Your task to perform on an android device: refresh tabs in the chrome app Image 0: 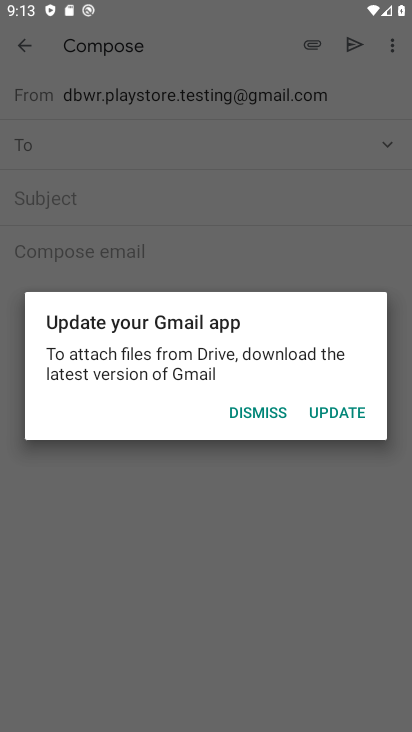
Step 0: click (123, 629)
Your task to perform on an android device: refresh tabs in the chrome app Image 1: 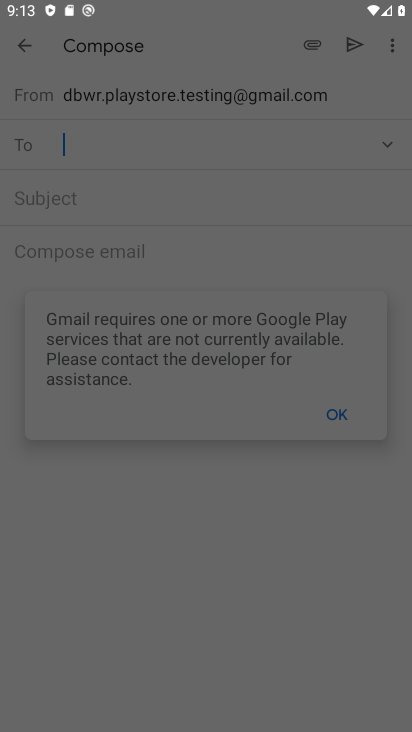
Step 1: press back button
Your task to perform on an android device: refresh tabs in the chrome app Image 2: 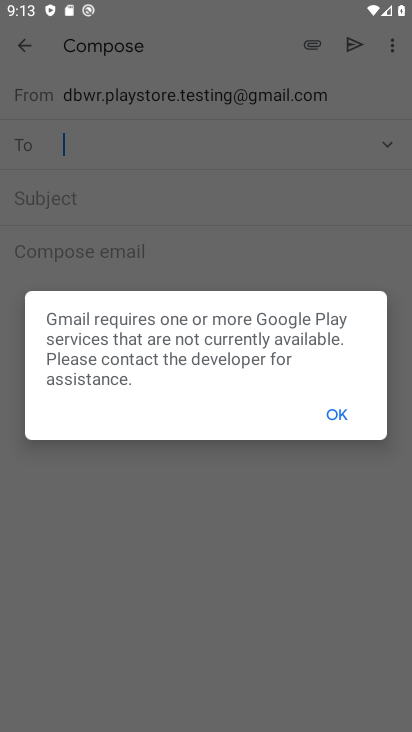
Step 2: press back button
Your task to perform on an android device: refresh tabs in the chrome app Image 3: 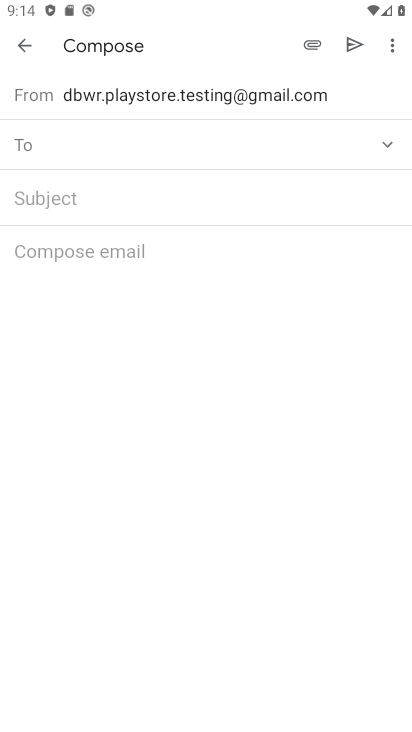
Step 3: press home button
Your task to perform on an android device: refresh tabs in the chrome app Image 4: 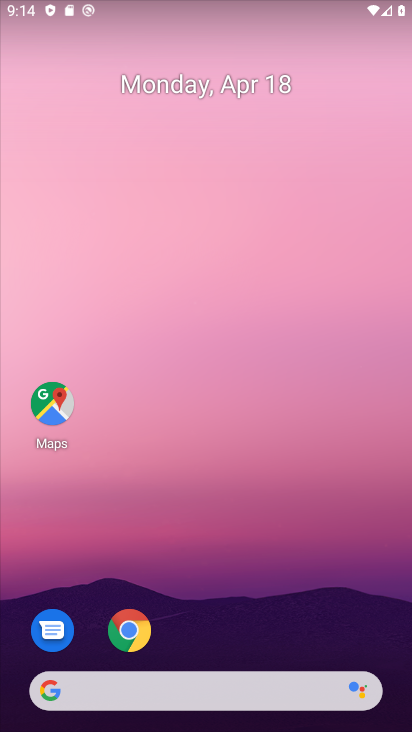
Step 4: click (141, 632)
Your task to perform on an android device: refresh tabs in the chrome app Image 5: 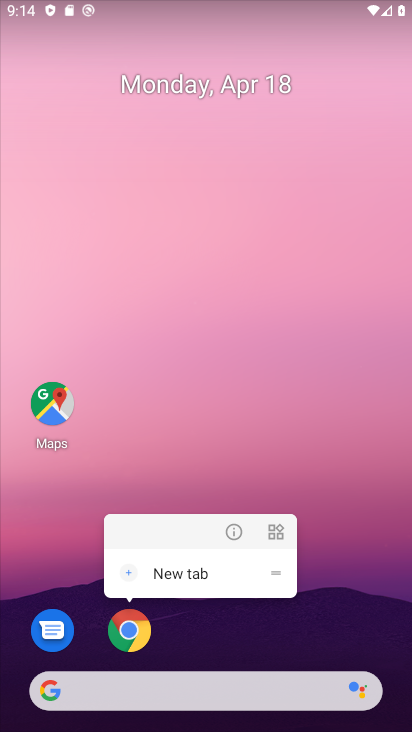
Step 5: click (198, 648)
Your task to perform on an android device: refresh tabs in the chrome app Image 6: 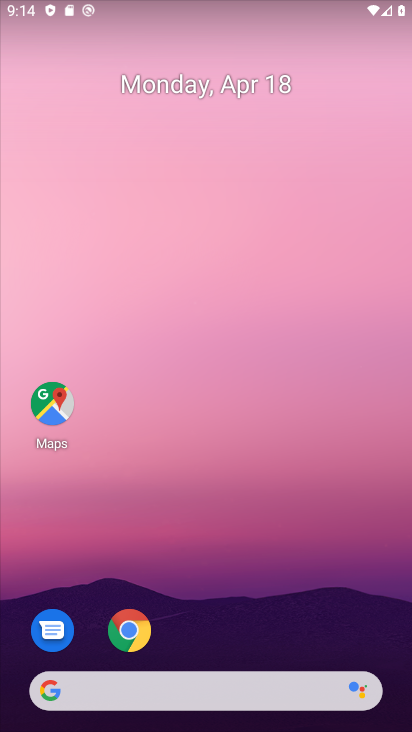
Step 6: drag from (199, 613) to (228, 160)
Your task to perform on an android device: refresh tabs in the chrome app Image 7: 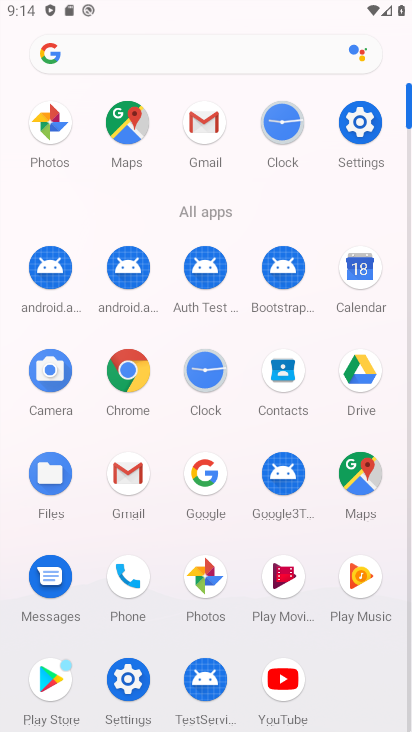
Step 7: click (130, 382)
Your task to perform on an android device: refresh tabs in the chrome app Image 8: 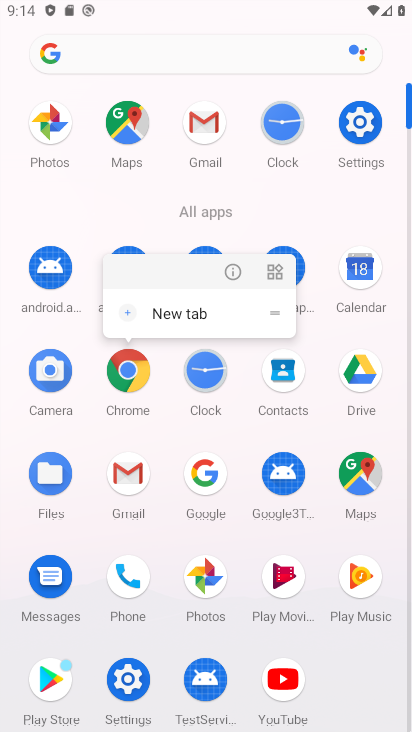
Step 8: click (133, 373)
Your task to perform on an android device: refresh tabs in the chrome app Image 9: 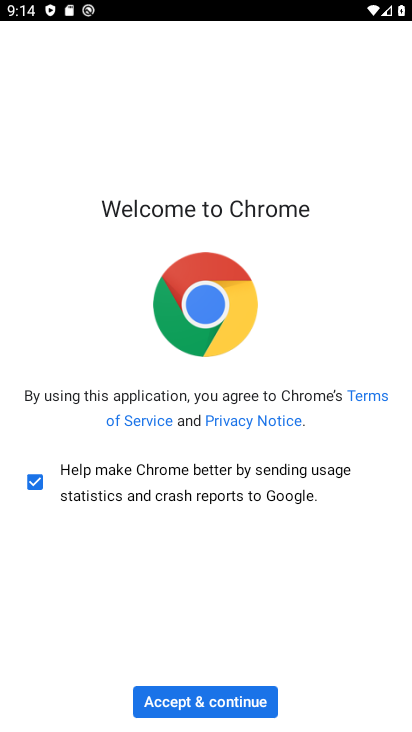
Step 9: click (246, 693)
Your task to perform on an android device: refresh tabs in the chrome app Image 10: 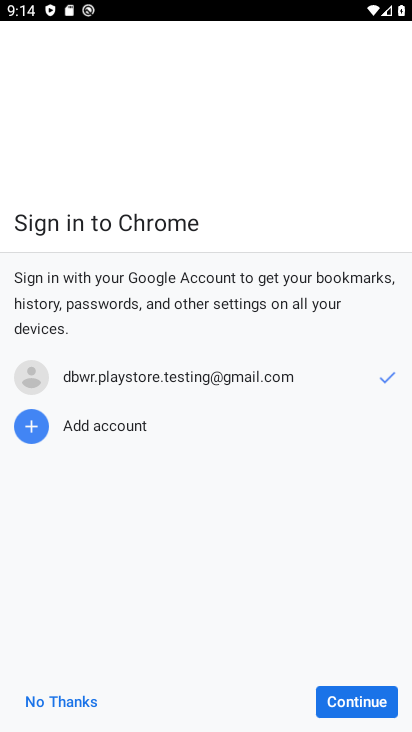
Step 10: click (361, 700)
Your task to perform on an android device: refresh tabs in the chrome app Image 11: 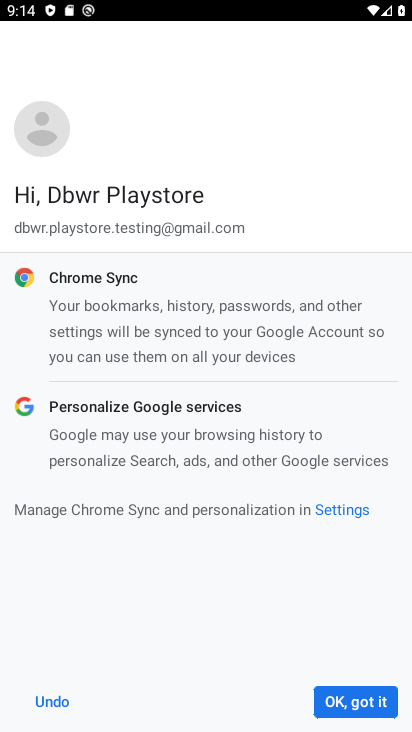
Step 11: click (352, 706)
Your task to perform on an android device: refresh tabs in the chrome app Image 12: 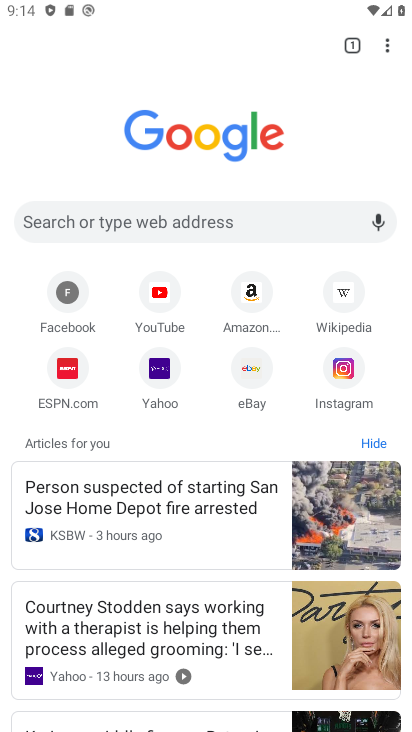
Step 12: click (389, 42)
Your task to perform on an android device: refresh tabs in the chrome app Image 13: 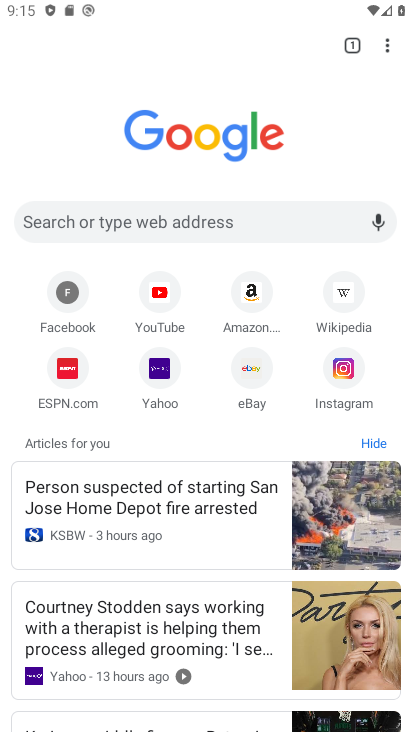
Step 13: click (383, 48)
Your task to perform on an android device: refresh tabs in the chrome app Image 14: 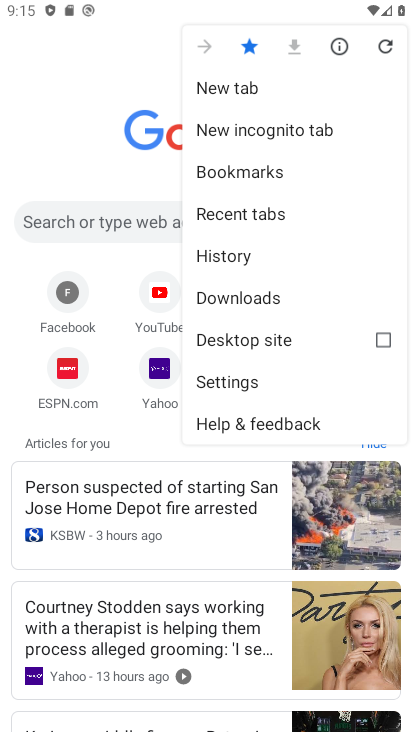
Step 14: click (384, 49)
Your task to perform on an android device: refresh tabs in the chrome app Image 15: 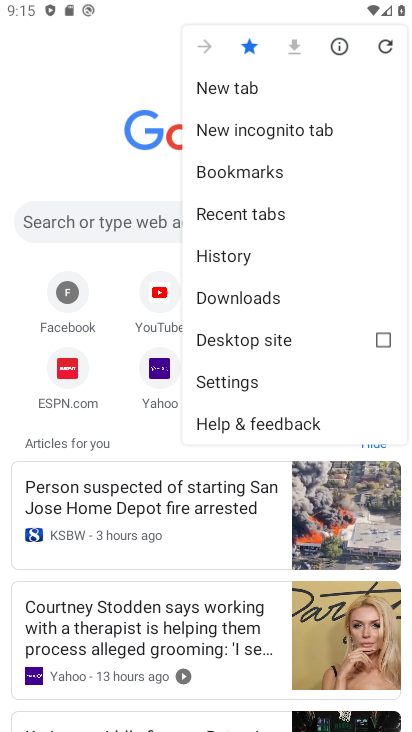
Step 15: task complete